Your task to perform on an android device: Show me popular videos on Youtube Image 0: 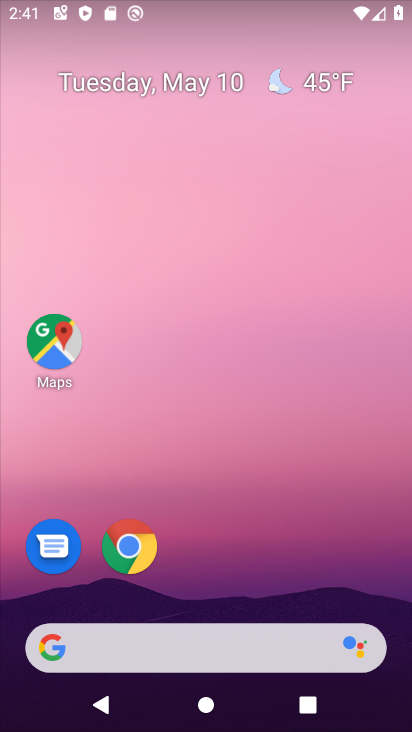
Step 0: drag from (320, 587) to (242, 42)
Your task to perform on an android device: Show me popular videos on Youtube Image 1: 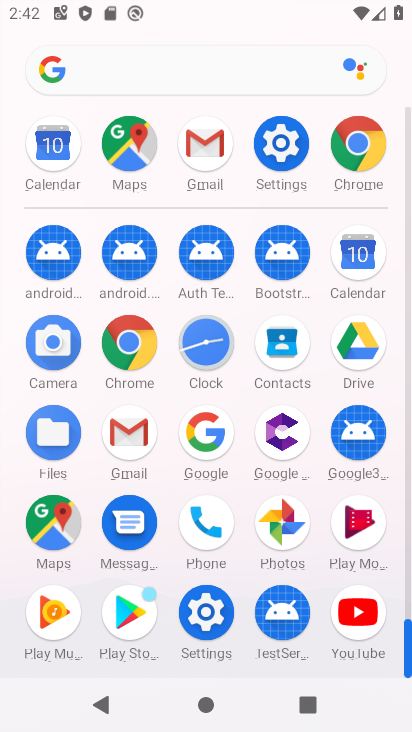
Step 1: click (357, 605)
Your task to perform on an android device: Show me popular videos on Youtube Image 2: 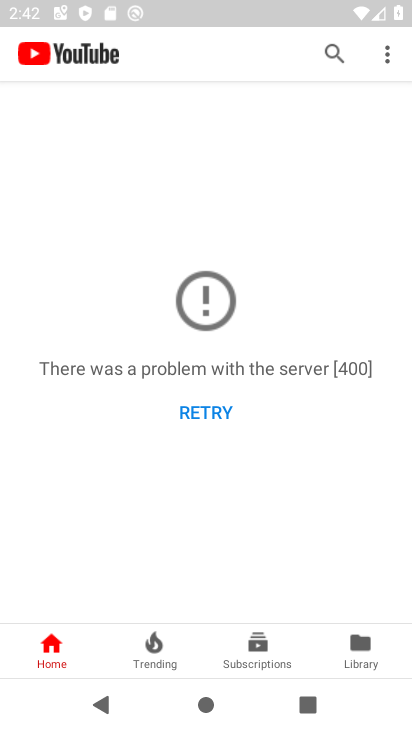
Step 2: click (41, 664)
Your task to perform on an android device: Show me popular videos on Youtube Image 3: 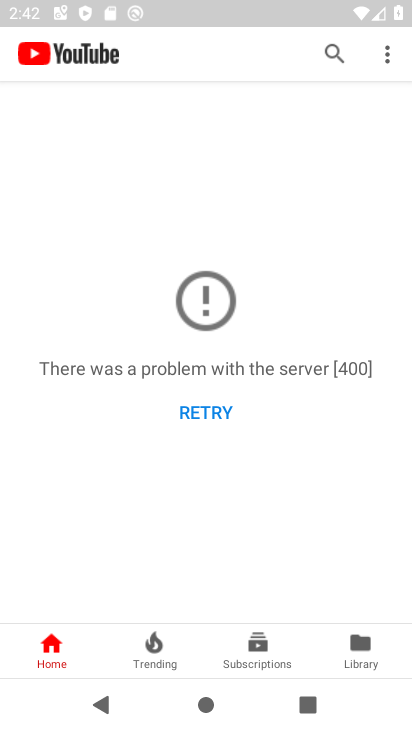
Step 3: task complete